Your task to perform on an android device: make emails show in primary in the gmail app Image 0: 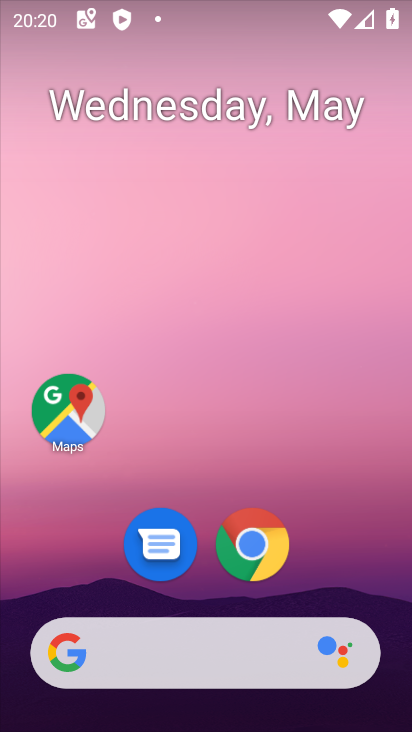
Step 0: drag from (201, 592) to (251, 72)
Your task to perform on an android device: make emails show in primary in the gmail app Image 1: 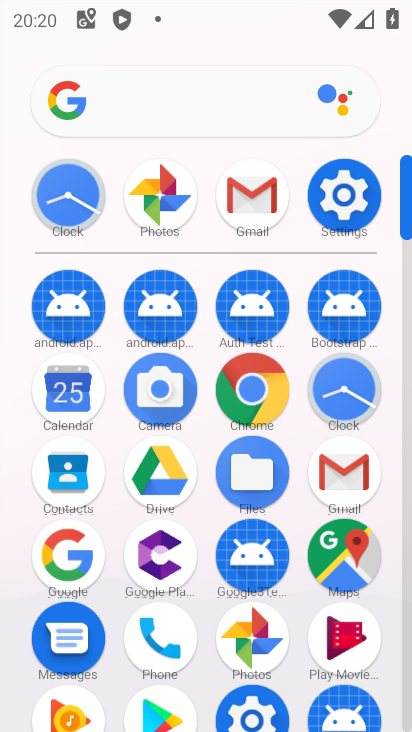
Step 1: click (270, 220)
Your task to perform on an android device: make emails show in primary in the gmail app Image 2: 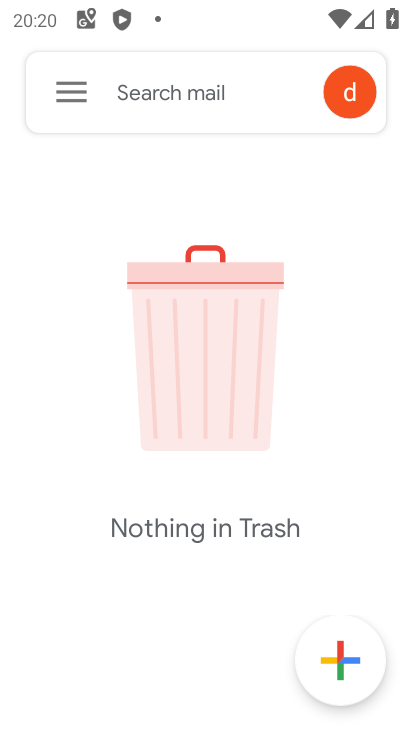
Step 2: click (56, 92)
Your task to perform on an android device: make emails show in primary in the gmail app Image 3: 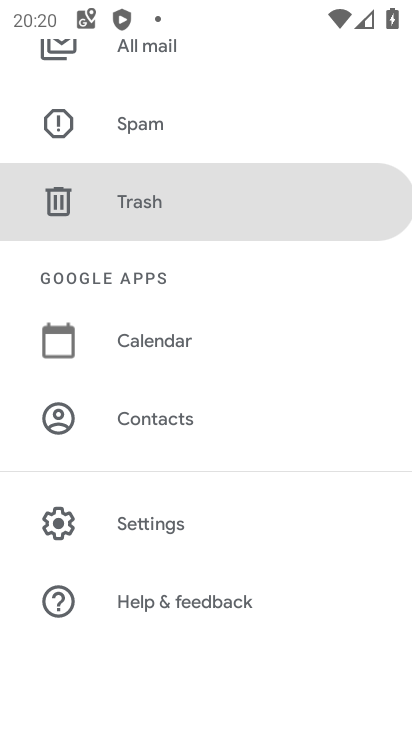
Step 3: task complete